Your task to perform on an android device: toggle improve location accuracy Image 0: 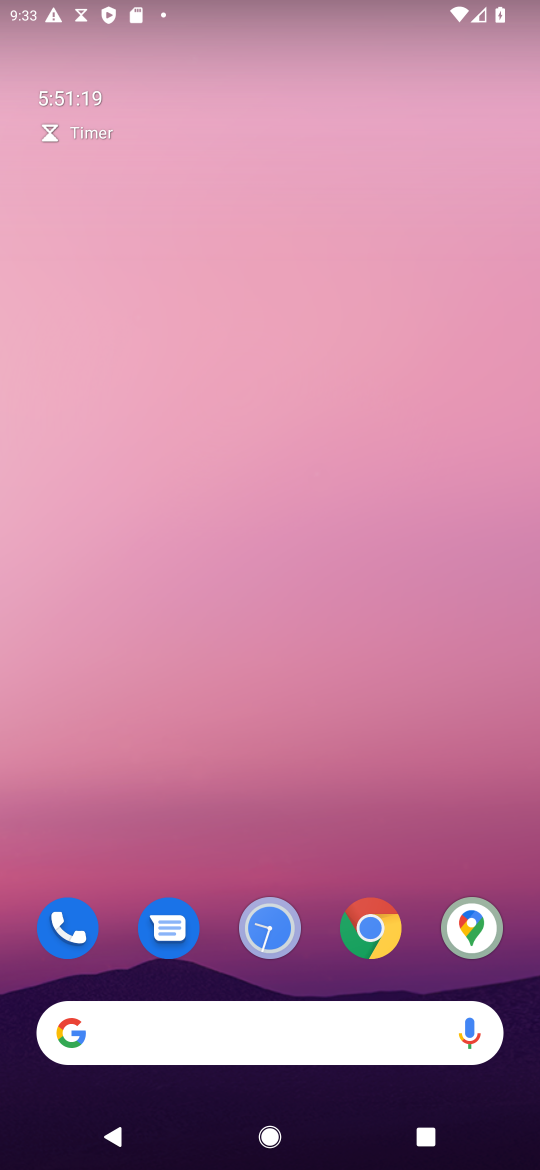
Step 0: press home button
Your task to perform on an android device: toggle improve location accuracy Image 1: 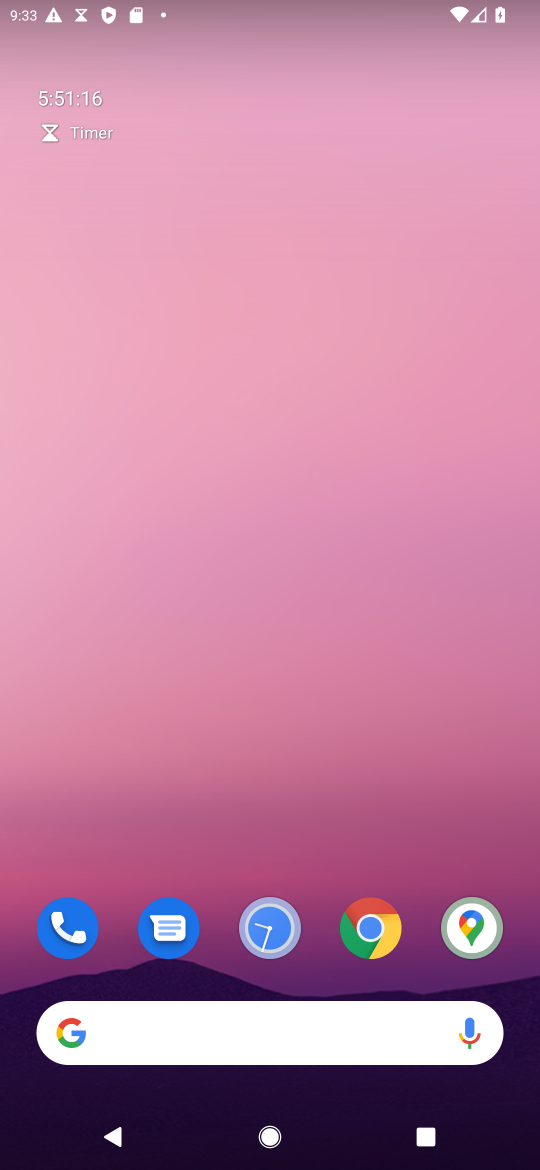
Step 1: drag from (347, 834) to (412, 108)
Your task to perform on an android device: toggle improve location accuracy Image 2: 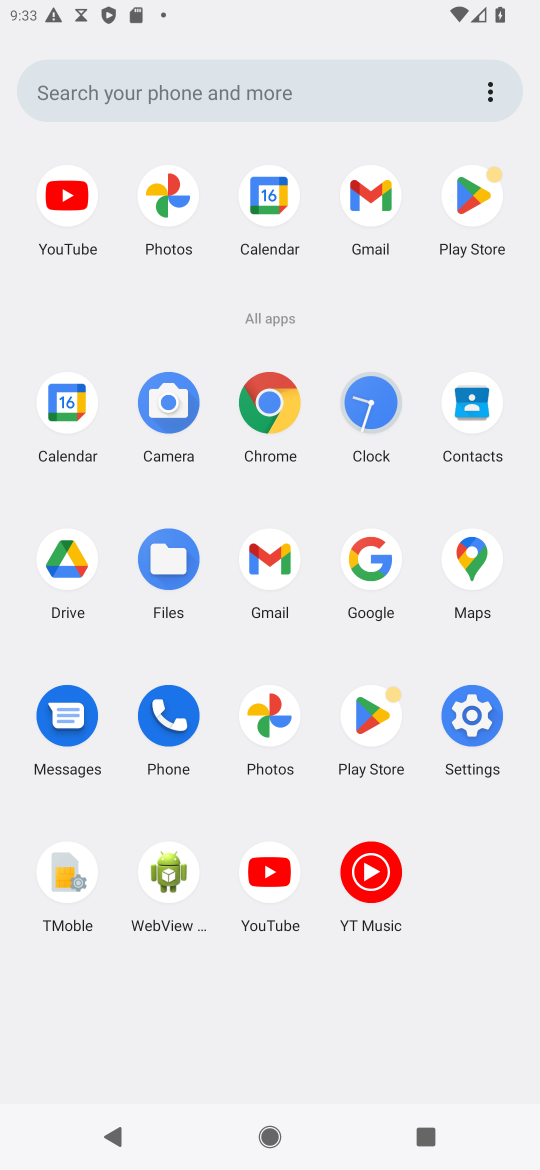
Step 2: click (472, 728)
Your task to perform on an android device: toggle improve location accuracy Image 3: 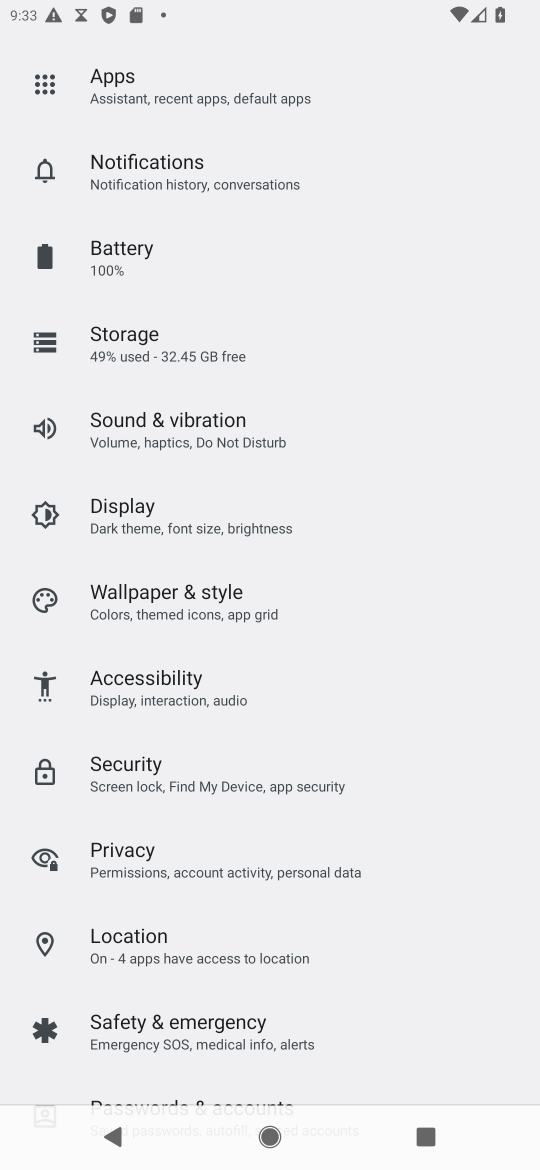
Step 3: click (211, 955)
Your task to perform on an android device: toggle improve location accuracy Image 4: 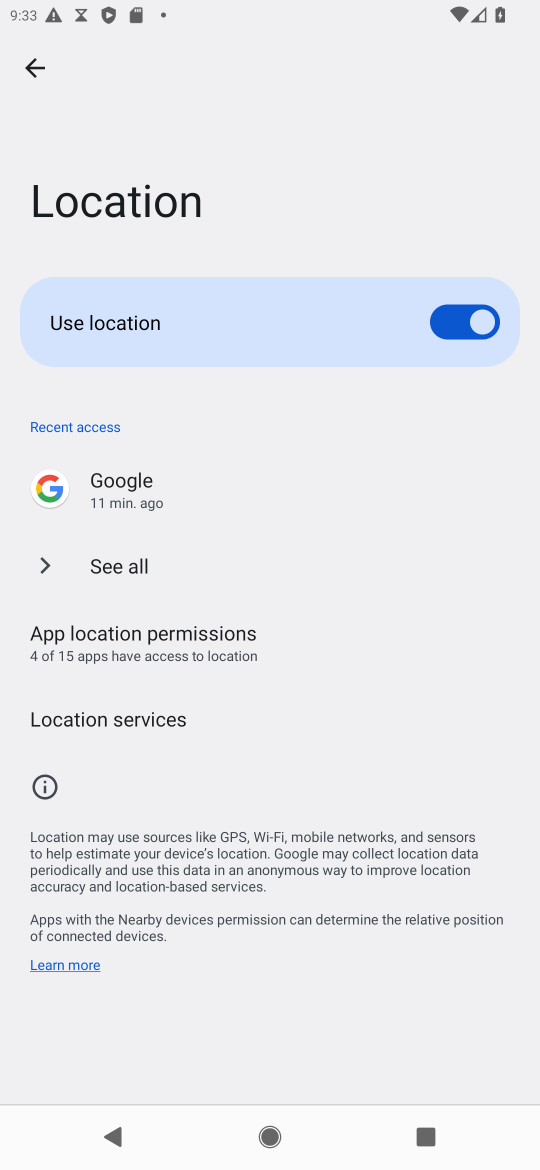
Step 4: click (66, 719)
Your task to perform on an android device: toggle improve location accuracy Image 5: 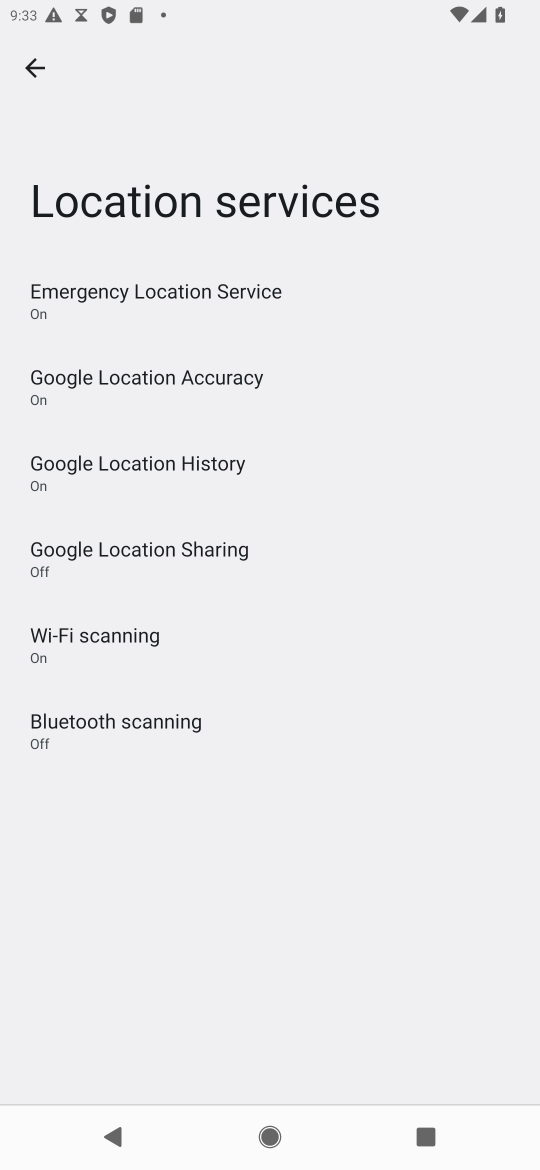
Step 5: click (213, 394)
Your task to perform on an android device: toggle improve location accuracy Image 6: 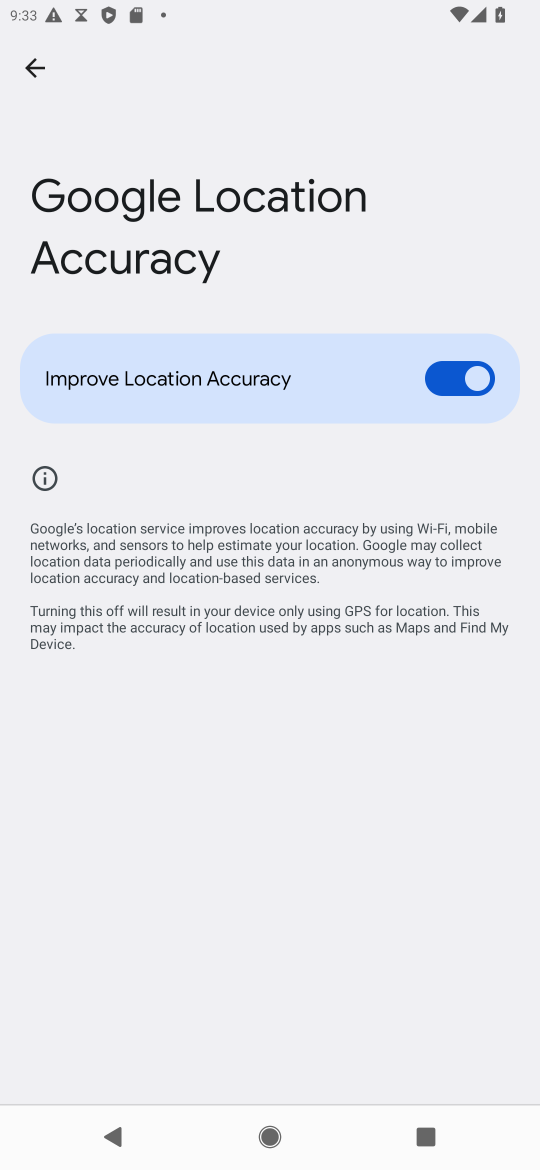
Step 6: click (465, 377)
Your task to perform on an android device: toggle improve location accuracy Image 7: 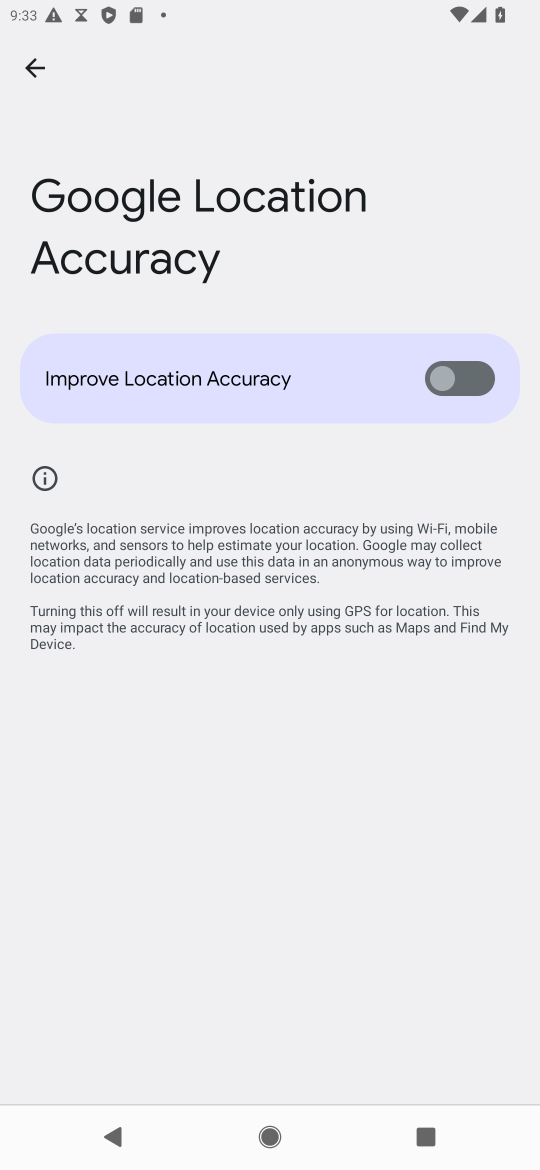
Step 7: task complete